Your task to perform on an android device: Go to internet settings Image 0: 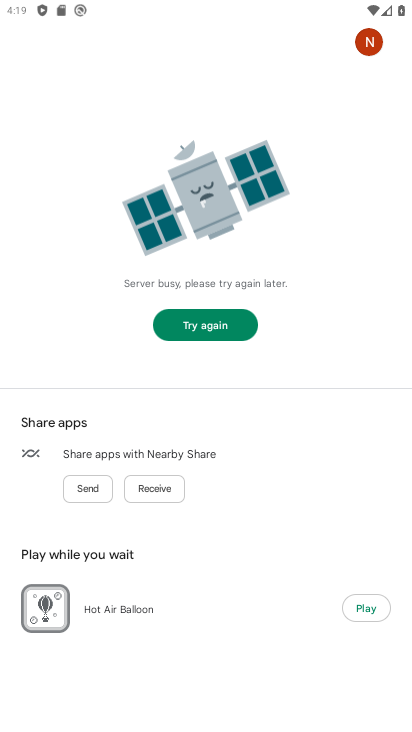
Step 0: press home button
Your task to perform on an android device: Go to internet settings Image 1: 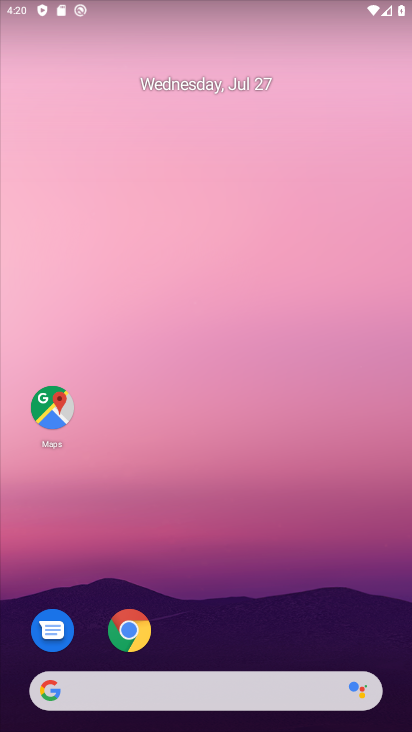
Step 1: drag from (217, 691) to (286, 10)
Your task to perform on an android device: Go to internet settings Image 2: 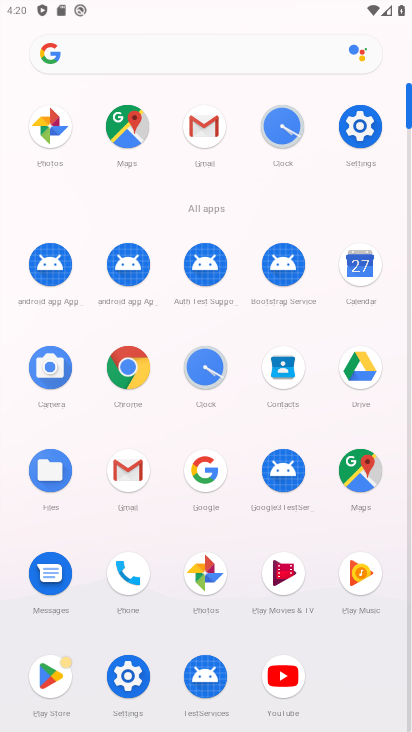
Step 2: click (358, 124)
Your task to perform on an android device: Go to internet settings Image 3: 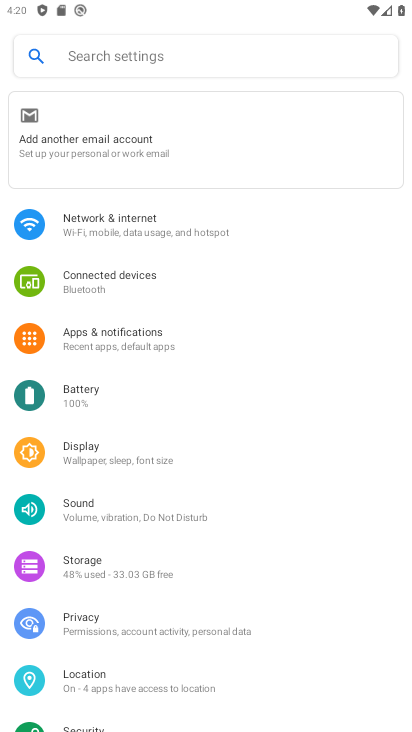
Step 3: click (112, 224)
Your task to perform on an android device: Go to internet settings Image 4: 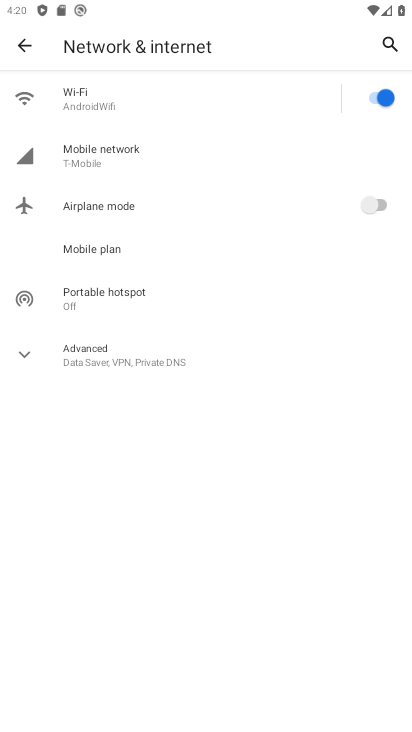
Step 4: task complete